Your task to perform on an android device: remove spam from my inbox in the gmail app Image 0: 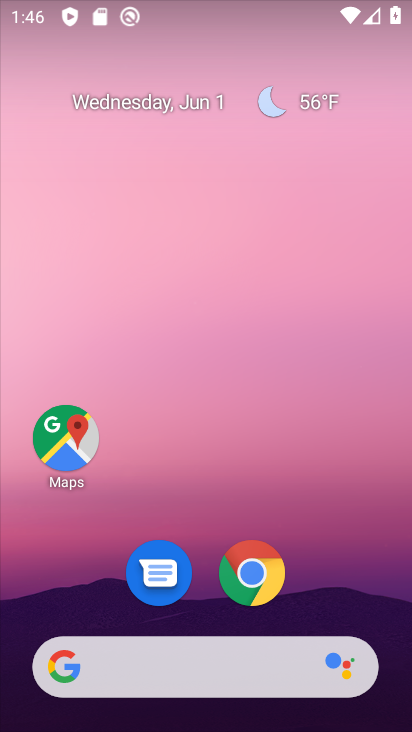
Step 0: drag from (327, 529) to (305, 75)
Your task to perform on an android device: remove spam from my inbox in the gmail app Image 1: 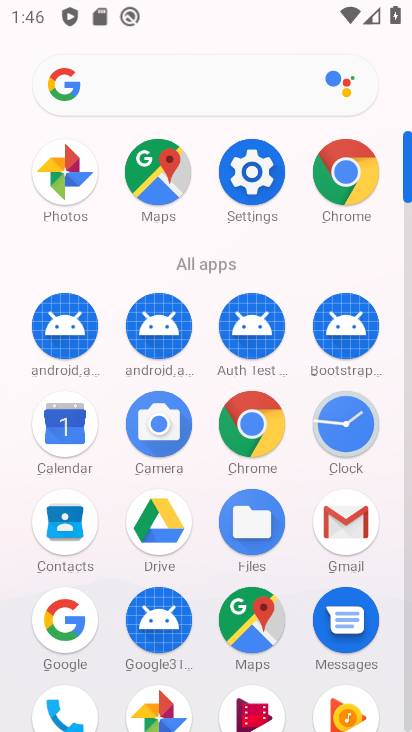
Step 1: click (354, 517)
Your task to perform on an android device: remove spam from my inbox in the gmail app Image 2: 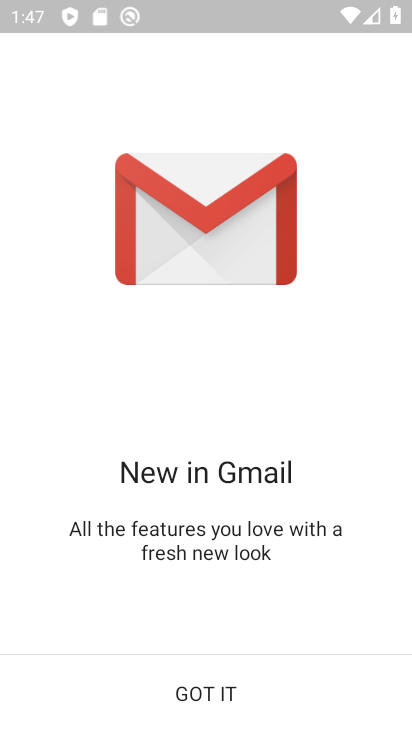
Step 2: click (230, 687)
Your task to perform on an android device: remove spam from my inbox in the gmail app Image 3: 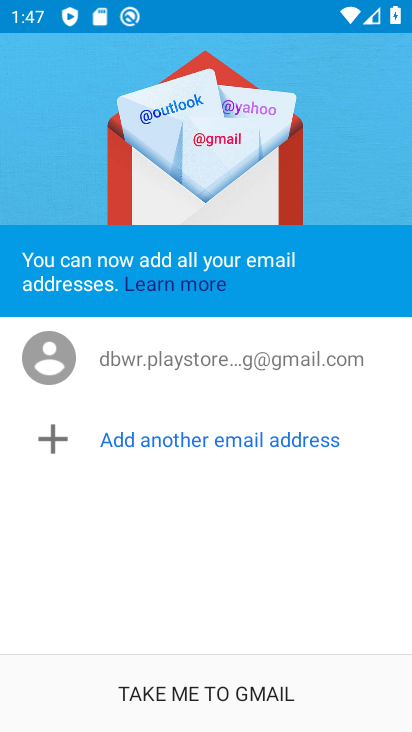
Step 3: click (249, 699)
Your task to perform on an android device: remove spam from my inbox in the gmail app Image 4: 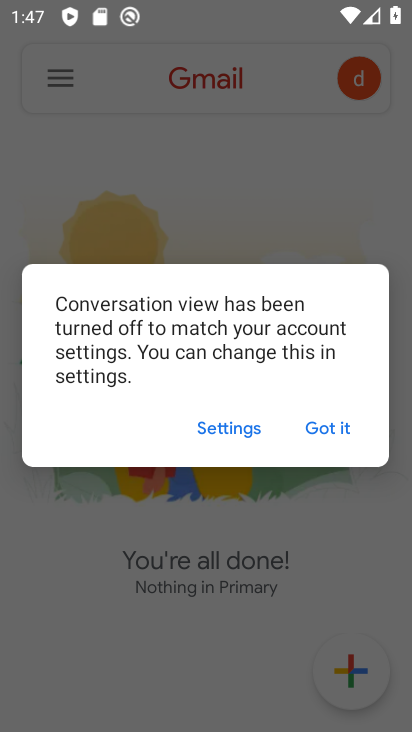
Step 4: click (321, 429)
Your task to perform on an android device: remove spam from my inbox in the gmail app Image 5: 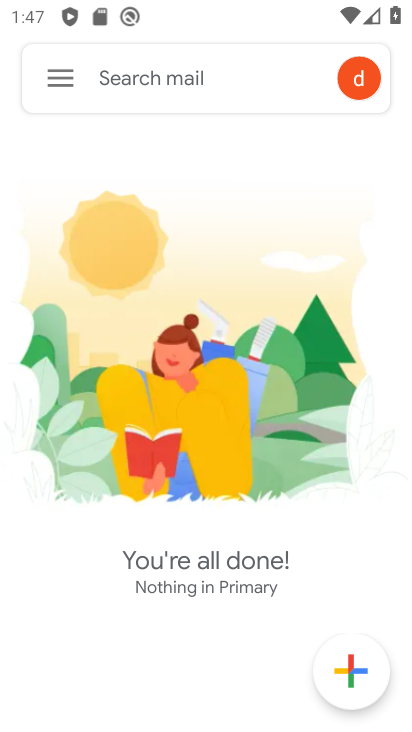
Step 5: click (62, 71)
Your task to perform on an android device: remove spam from my inbox in the gmail app Image 6: 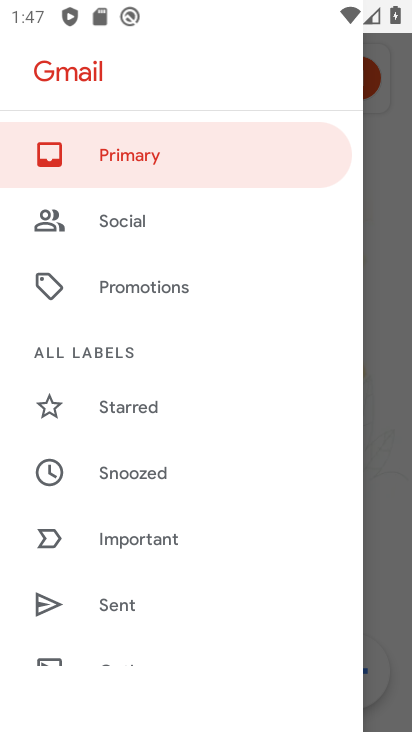
Step 6: drag from (204, 591) to (148, 115)
Your task to perform on an android device: remove spam from my inbox in the gmail app Image 7: 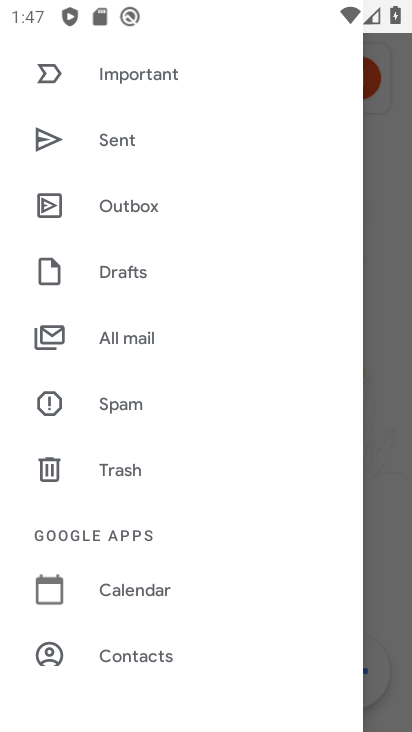
Step 7: click (126, 412)
Your task to perform on an android device: remove spam from my inbox in the gmail app Image 8: 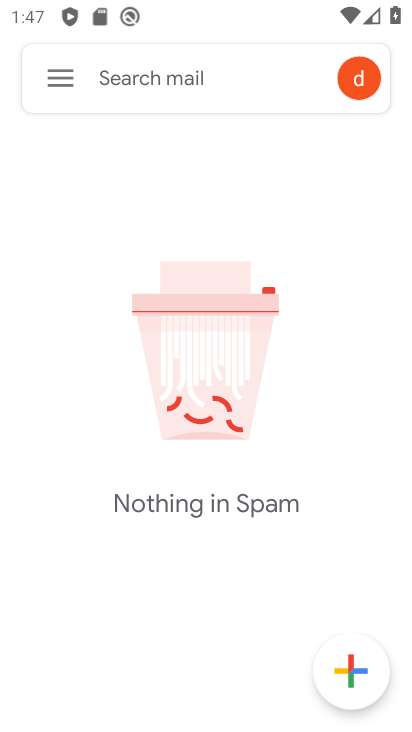
Step 8: task complete